Your task to perform on an android device: Do I have any events tomorrow? Image 0: 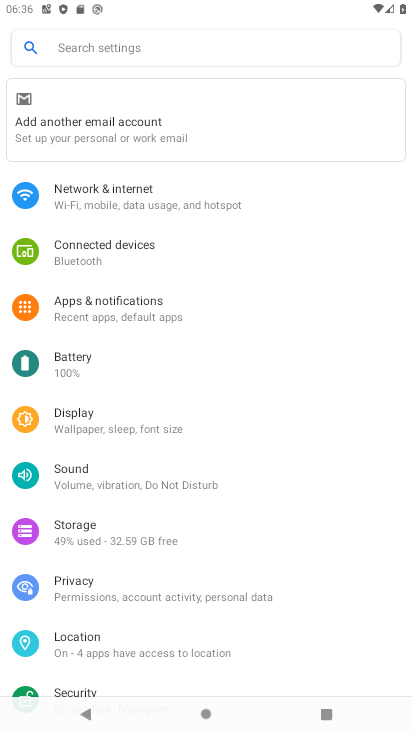
Step 0: press home button
Your task to perform on an android device: Do I have any events tomorrow? Image 1: 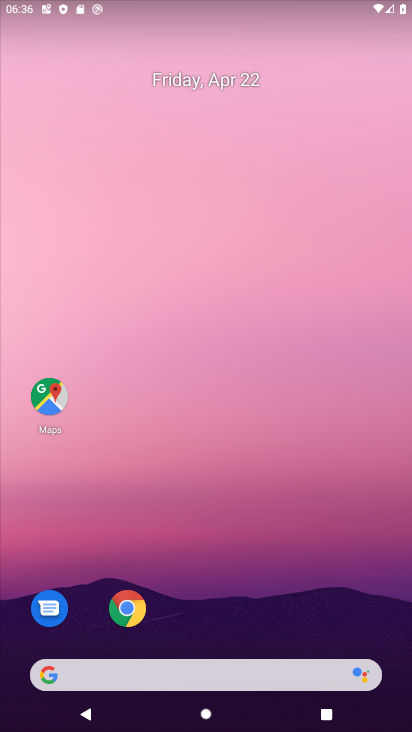
Step 1: drag from (187, 605) to (185, 86)
Your task to perform on an android device: Do I have any events tomorrow? Image 2: 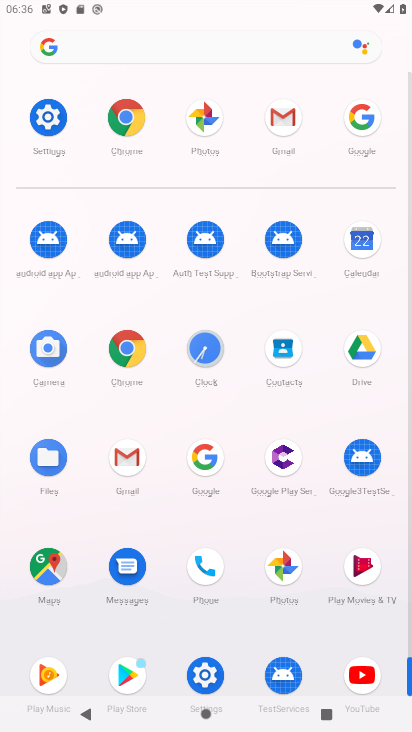
Step 2: click (361, 264)
Your task to perform on an android device: Do I have any events tomorrow? Image 3: 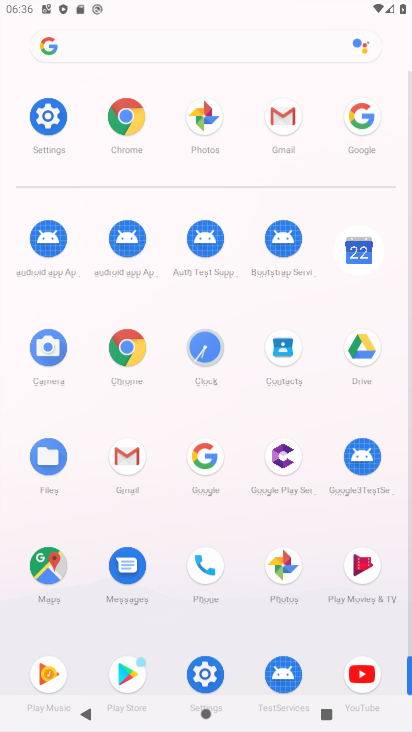
Step 3: click (360, 253)
Your task to perform on an android device: Do I have any events tomorrow? Image 4: 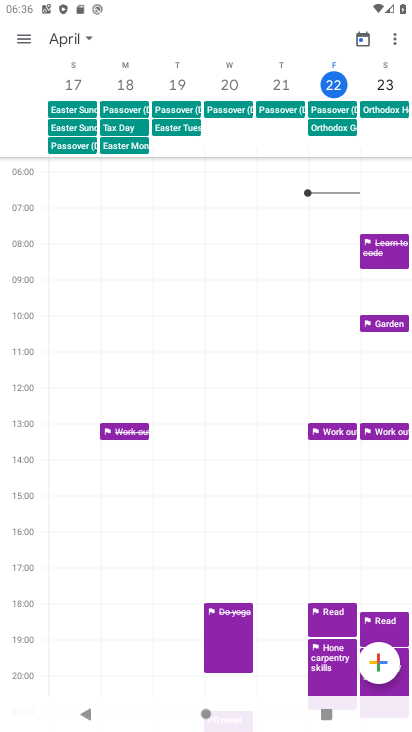
Step 4: click (25, 45)
Your task to perform on an android device: Do I have any events tomorrow? Image 5: 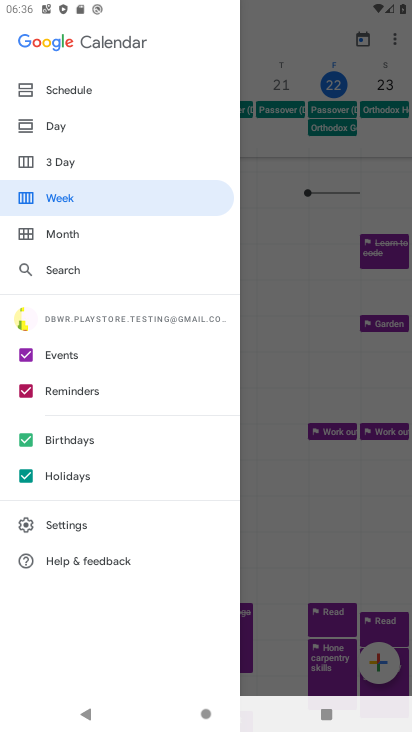
Step 5: click (49, 129)
Your task to perform on an android device: Do I have any events tomorrow? Image 6: 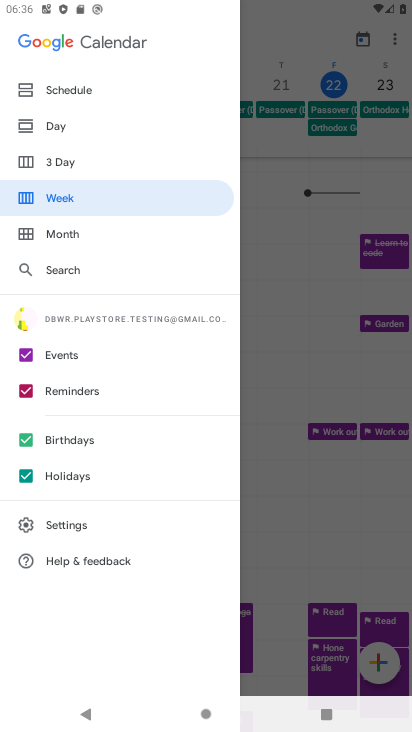
Step 6: click (67, 129)
Your task to perform on an android device: Do I have any events tomorrow? Image 7: 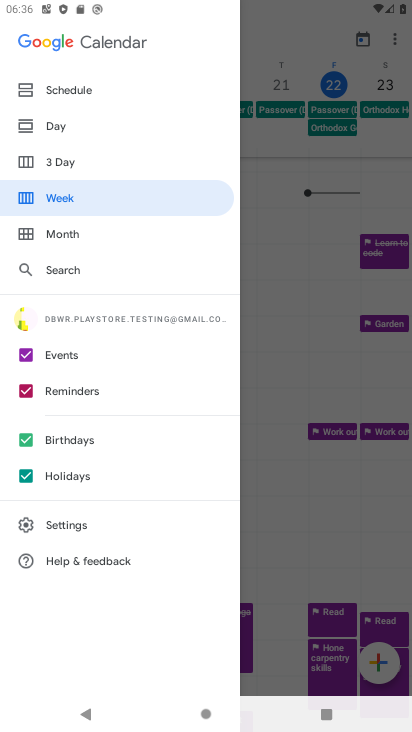
Step 7: click (67, 129)
Your task to perform on an android device: Do I have any events tomorrow? Image 8: 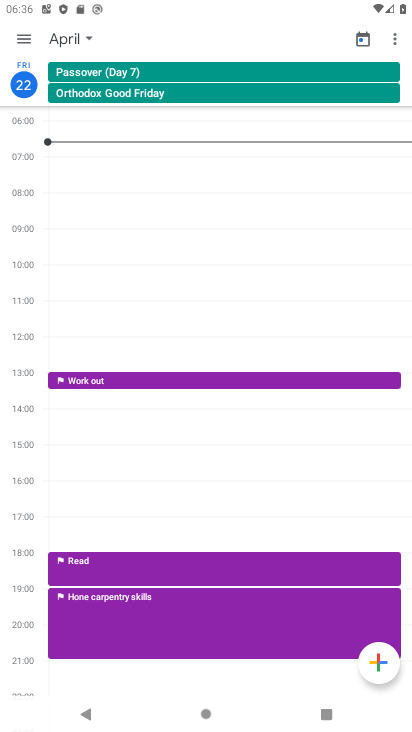
Step 8: click (67, 30)
Your task to perform on an android device: Do I have any events tomorrow? Image 9: 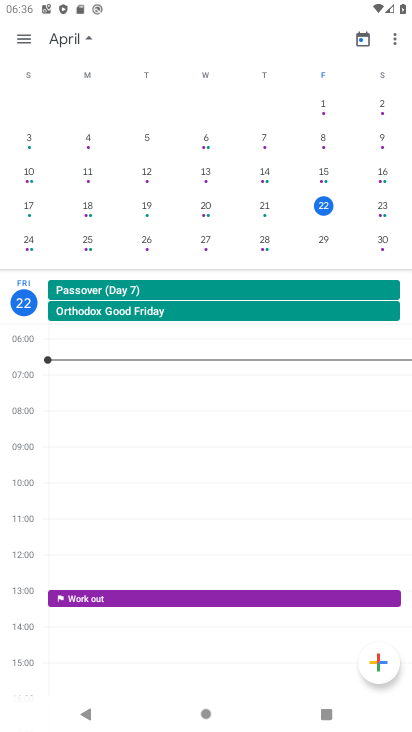
Step 9: click (379, 209)
Your task to perform on an android device: Do I have any events tomorrow? Image 10: 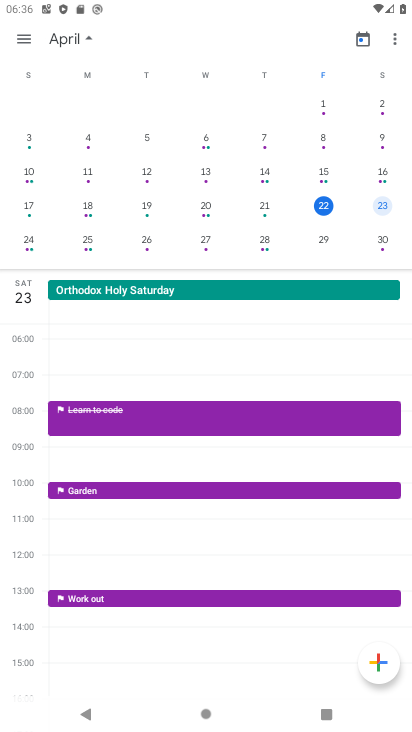
Step 10: click (386, 209)
Your task to perform on an android device: Do I have any events tomorrow? Image 11: 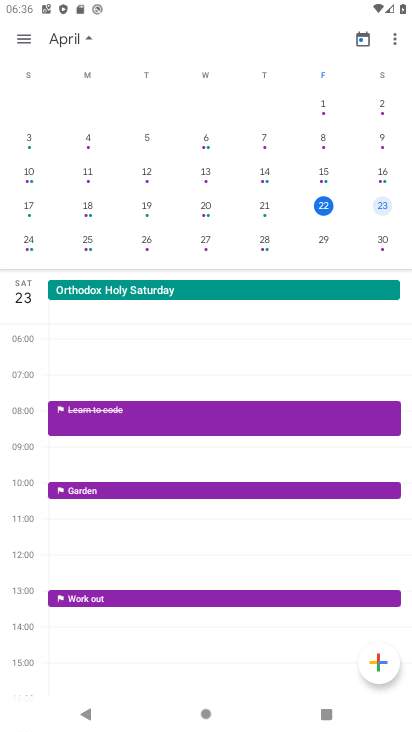
Step 11: task complete